Your task to perform on an android device: Do I have any events today? Image 0: 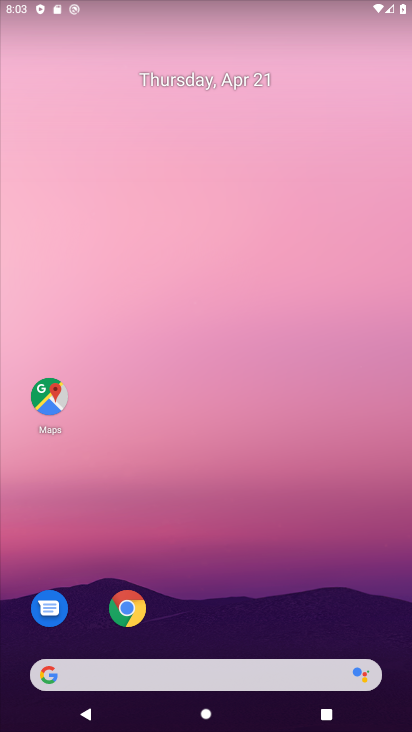
Step 0: click (169, 80)
Your task to perform on an android device: Do I have any events today? Image 1: 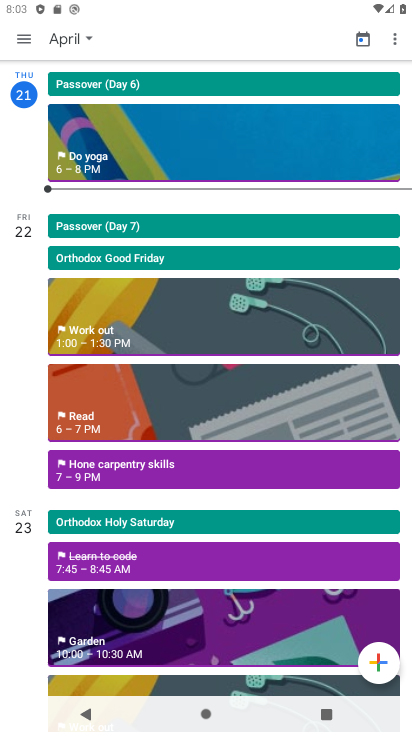
Step 1: click (16, 35)
Your task to perform on an android device: Do I have any events today? Image 2: 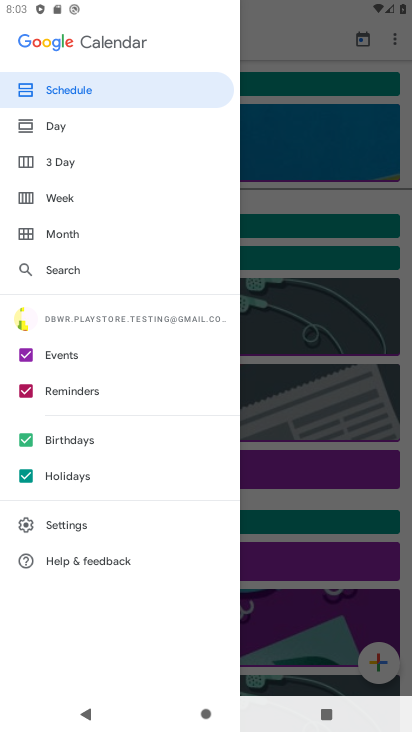
Step 2: click (22, 393)
Your task to perform on an android device: Do I have any events today? Image 3: 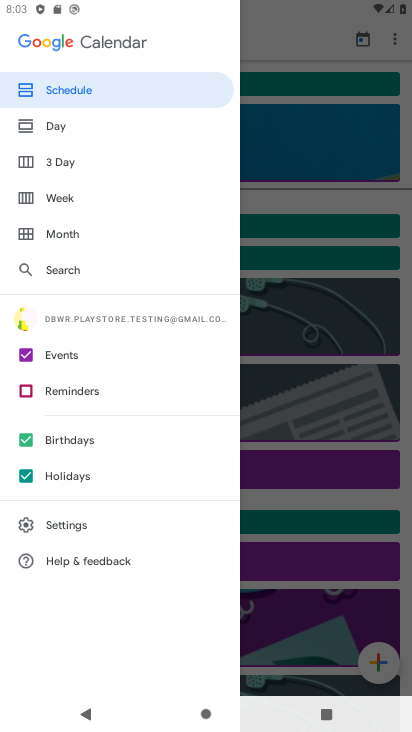
Step 3: click (29, 439)
Your task to perform on an android device: Do I have any events today? Image 4: 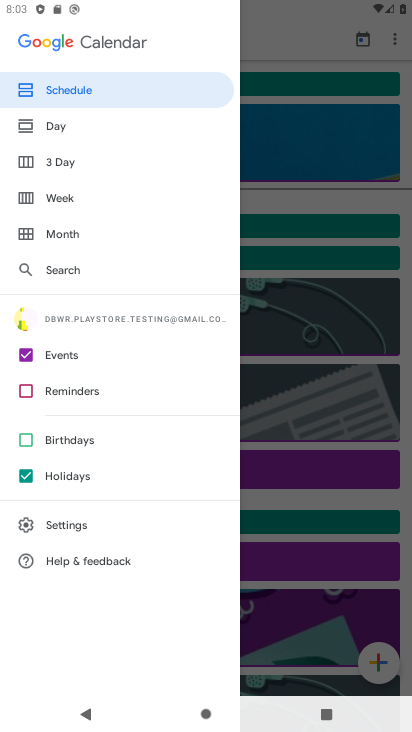
Step 4: click (25, 475)
Your task to perform on an android device: Do I have any events today? Image 5: 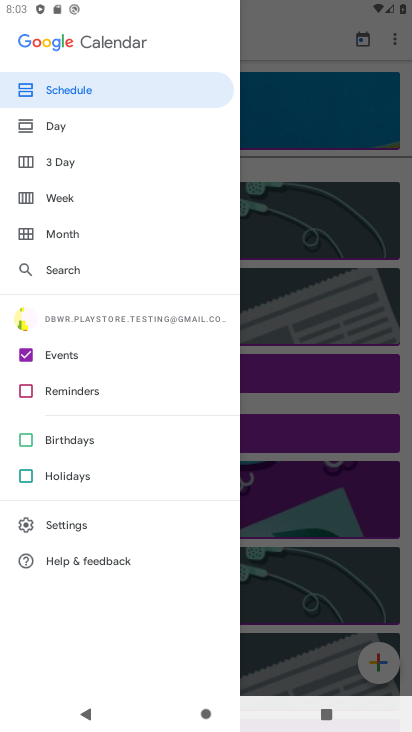
Step 5: click (332, 212)
Your task to perform on an android device: Do I have any events today? Image 6: 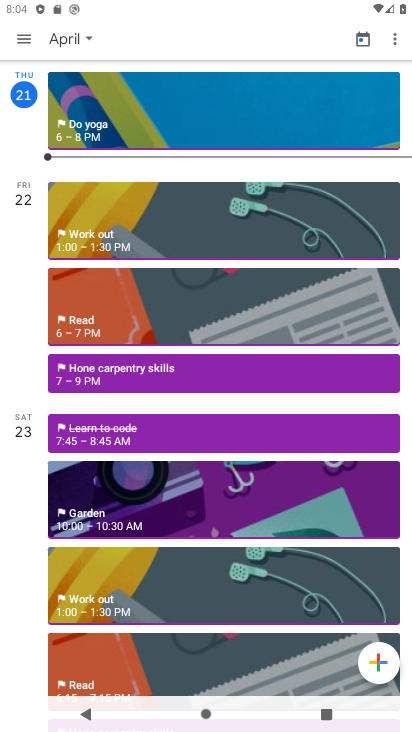
Step 6: click (240, 107)
Your task to perform on an android device: Do I have any events today? Image 7: 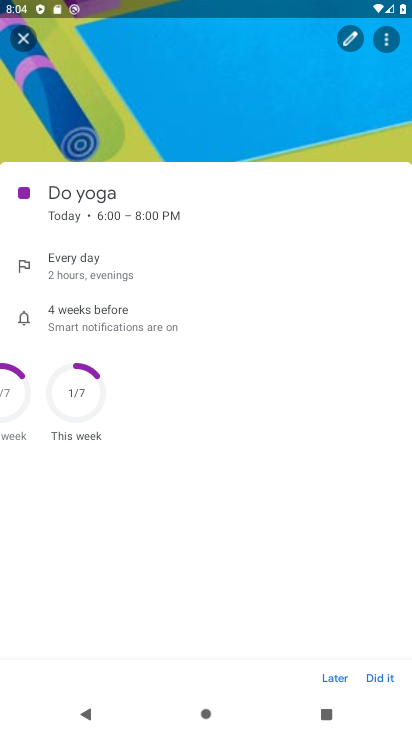
Step 7: task complete